Your task to perform on an android device: delete a single message in the gmail app Image 0: 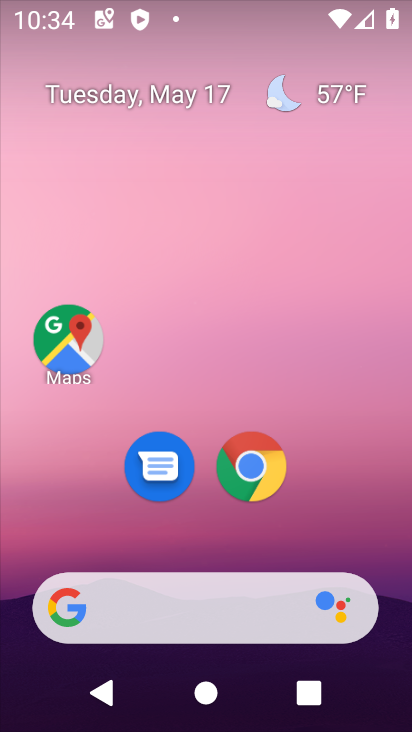
Step 0: press home button
Your task to perform on an android device: delete a single message in the gmail app Image 1: 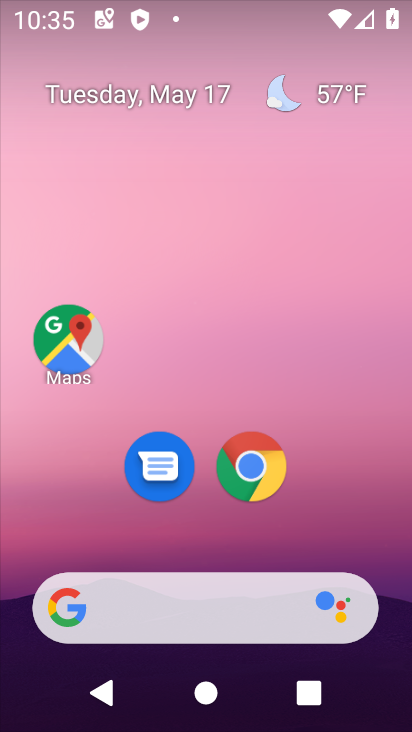
Step 1: drag from (299, 634) to (182, 267)
Your task to perform on an android device: delete a single message in the gmail app Image 2: 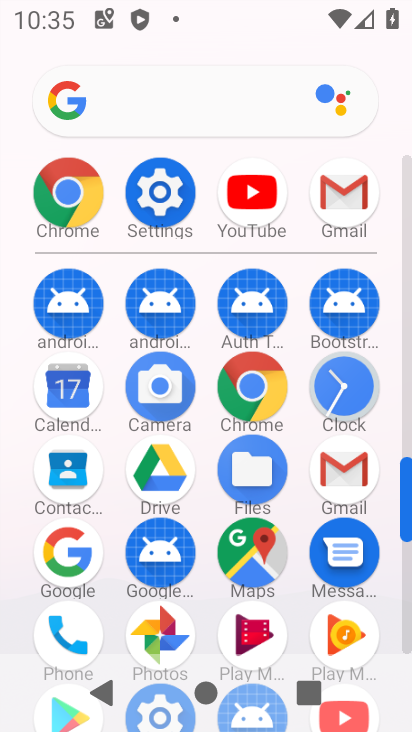
Step 2: click (327, 478)
Your task to perform on an android device: delete a single message in the gmail app Image 3: 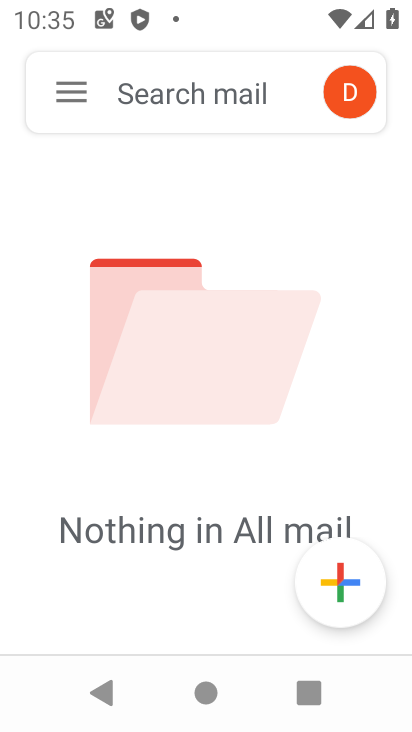
Step 3: click (73, 97)
Your task to perform on an android device: delete a single message in the gmail app Image 4: 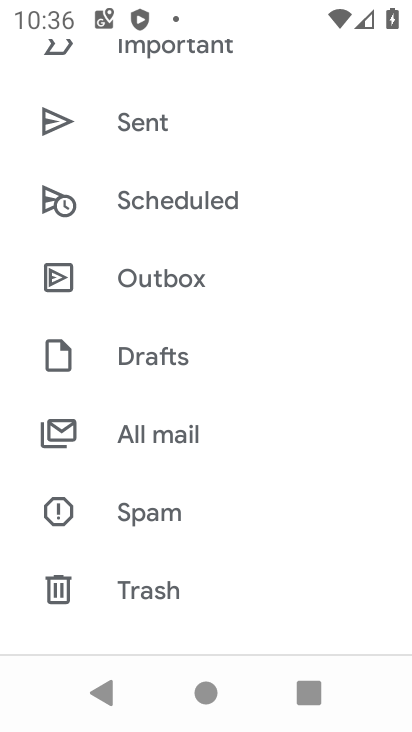
Step 4: click (144, 428)
Your task to perform on an android device: delete a single message in the gmail app Image 5: 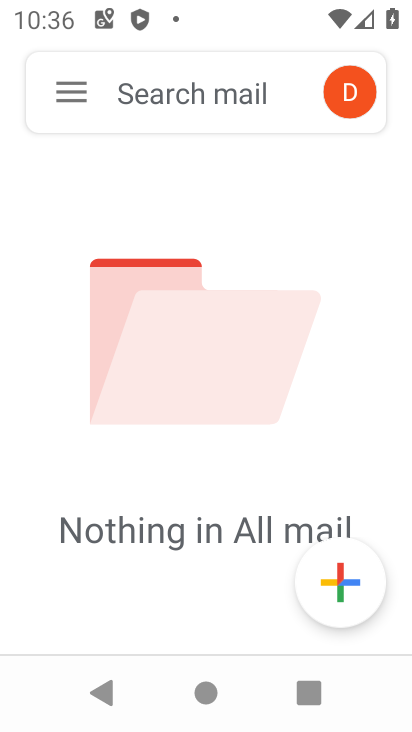
Step 5: task complete